Your task to perform on an android device: star an email in the gmail app Image 0: 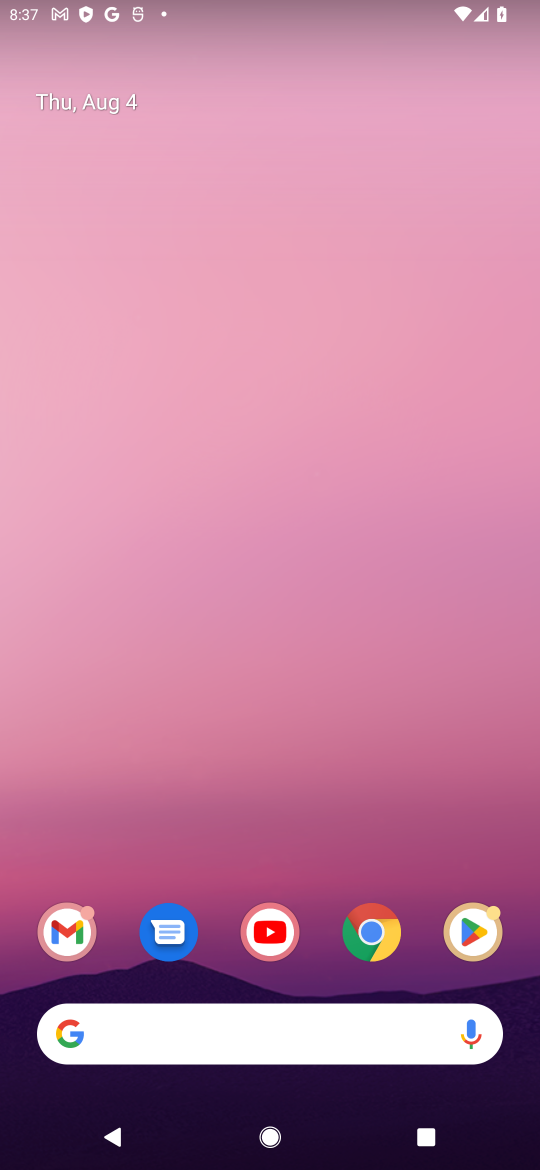
Step 0: click (60, 941)
Your task to perform on an android device: star an email in the gmail app Image 1: 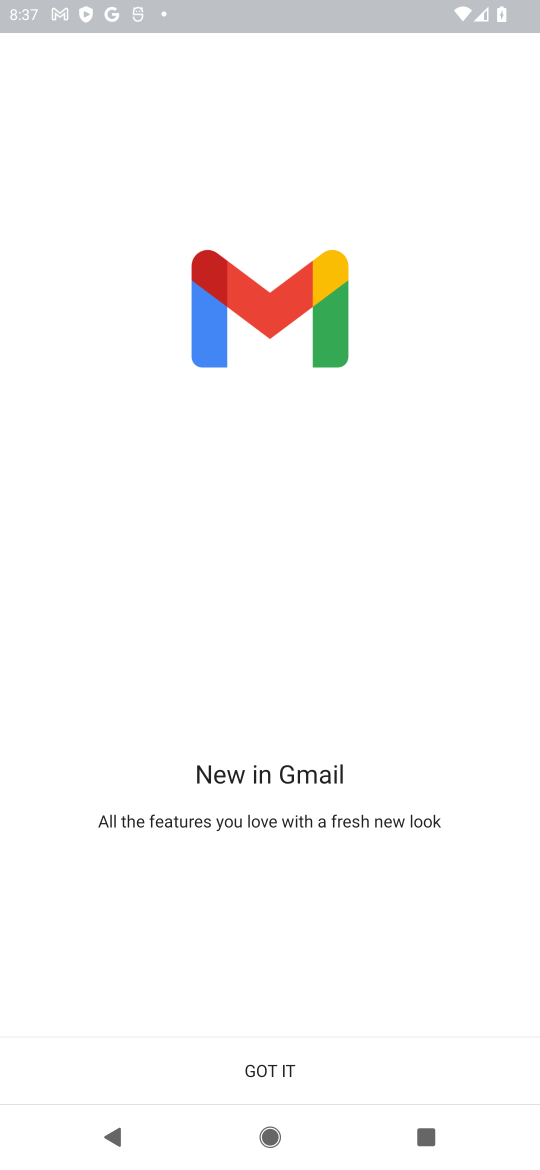
Step 1: click (245, 1081)
Your task to perform on an android device: star an email in the gmail app Image 2: 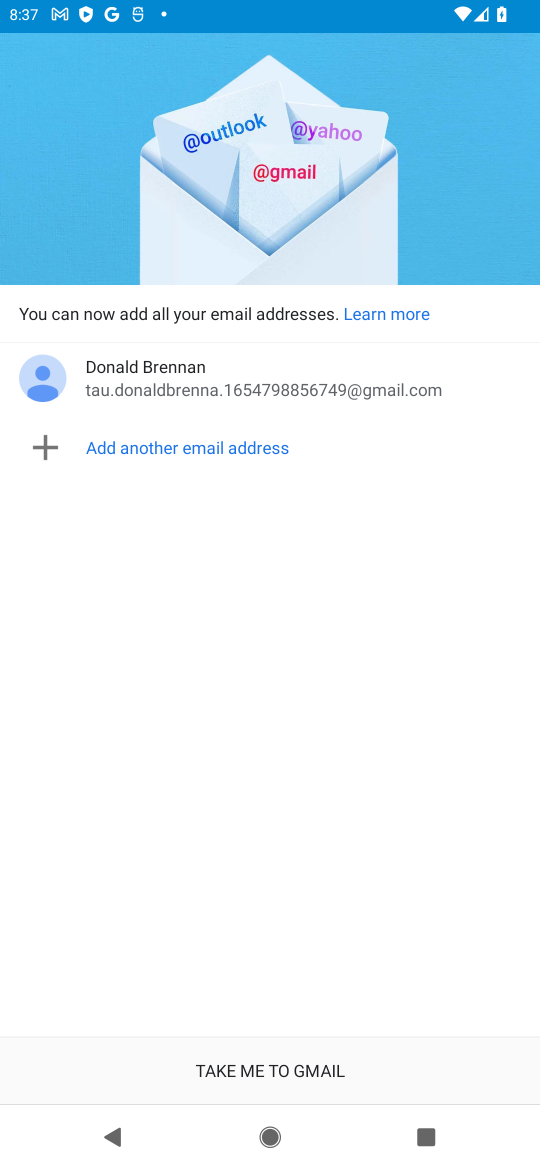
Step 2: click (245, 1081)
Your task to perform on an android device: star an email in the gmail app Image 3: 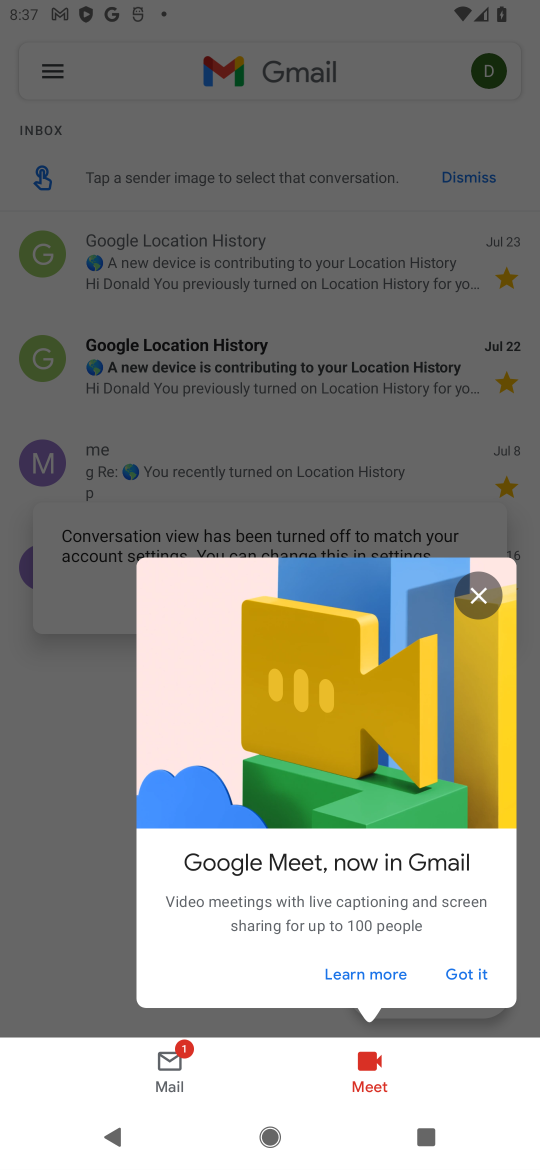
Step 3: click (252, 1065)
Your task to perform on an android device: star an email in the gmail app Image 4: 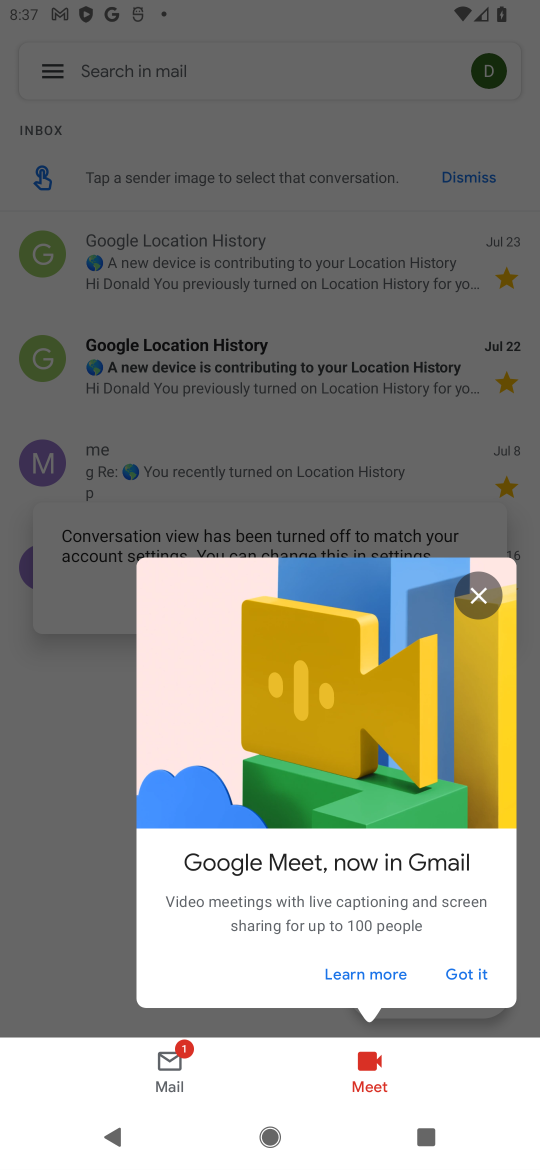
Step 4: click (44, 69)
Your task to perform on an android device: star an email in the gmail app Image 5: 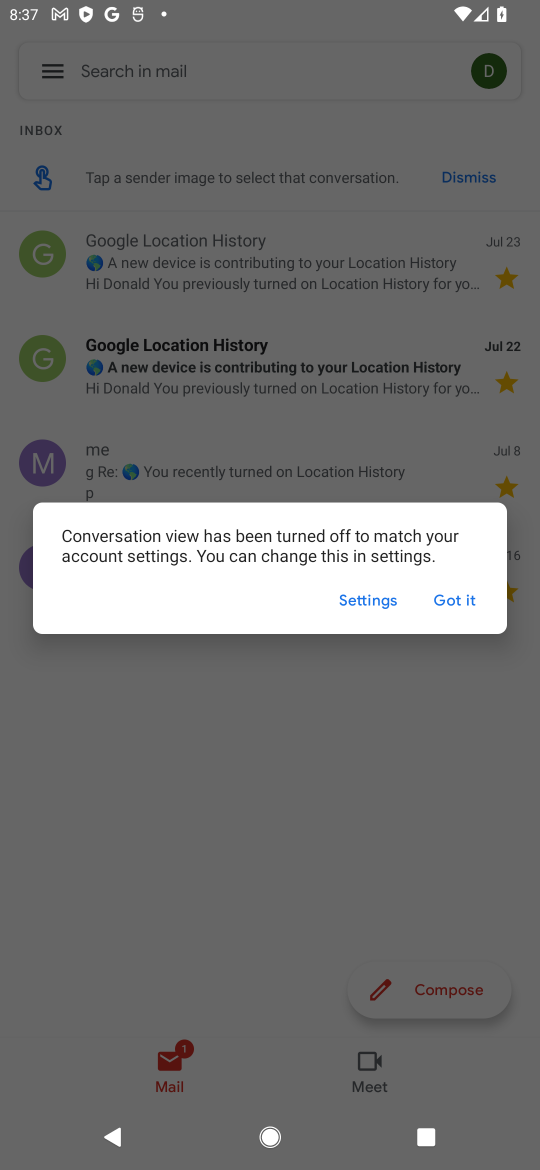
Step 5: click (447, 600)
Your task to perform on an android device: star an email in the gmail app Image 6: 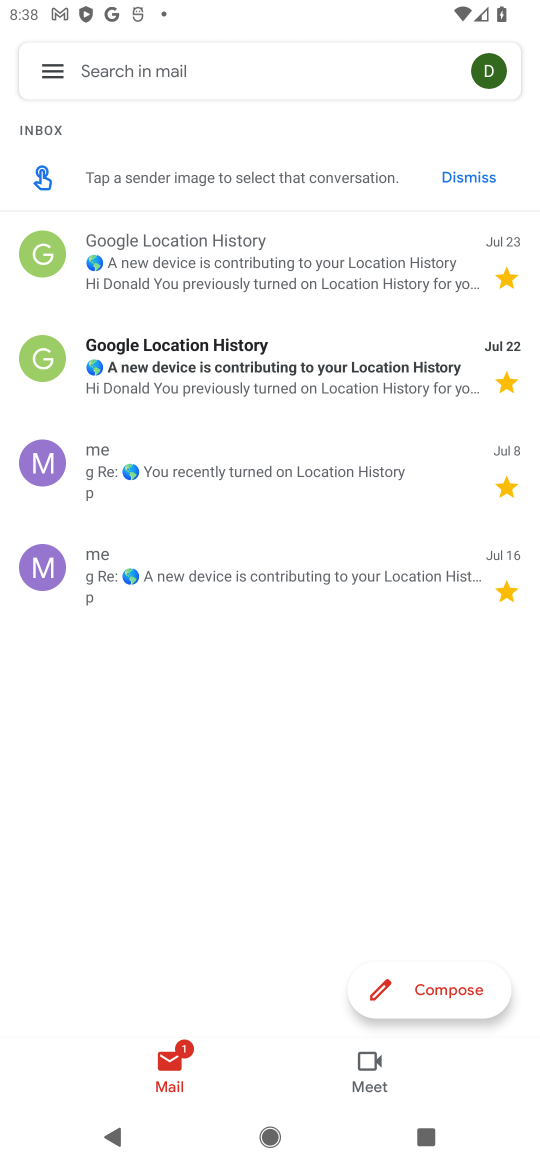
Step 6: click (228, 264)
Your task to perform on an android device: star an email in the gmail app Image 7: 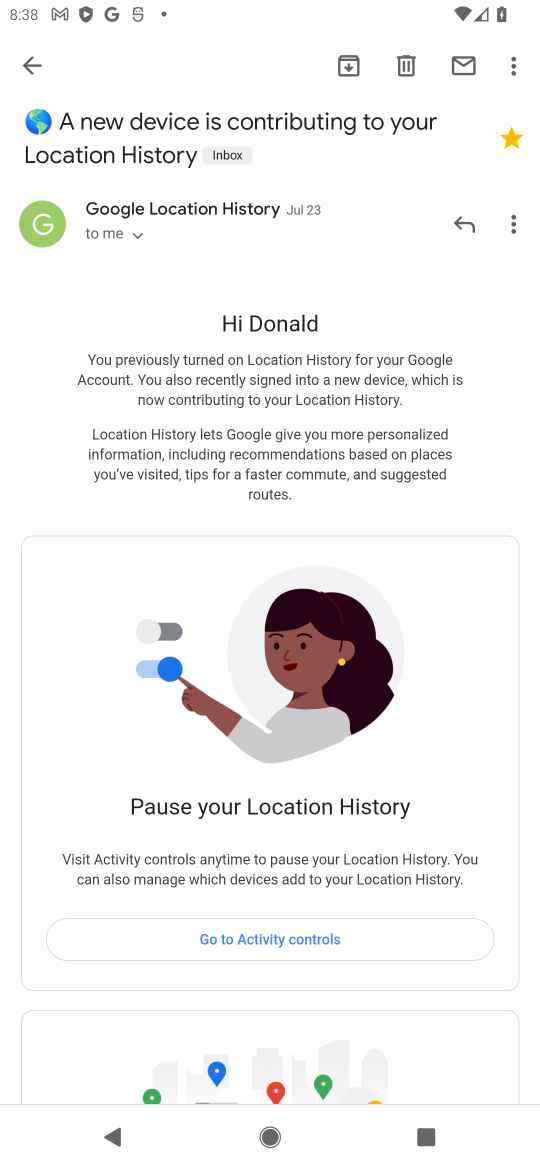
Step 7: click (512, 139)
Your task to perform on an android device: star an email in the gmail app Image 8: 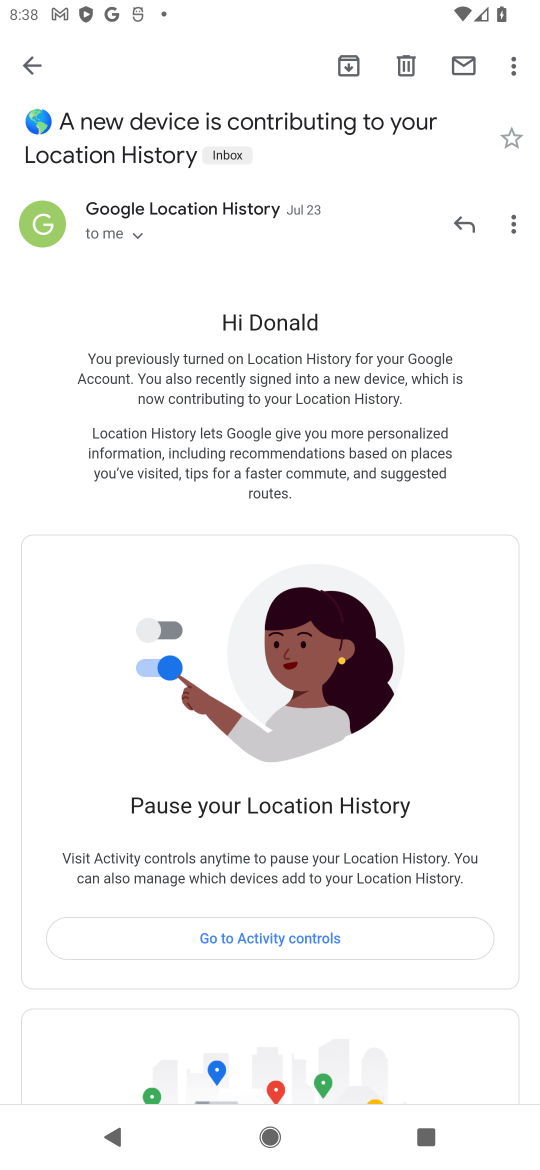
Step 8: click (512, 139)
Your task to perform on an android device: star an email in the gmail app Image 9: 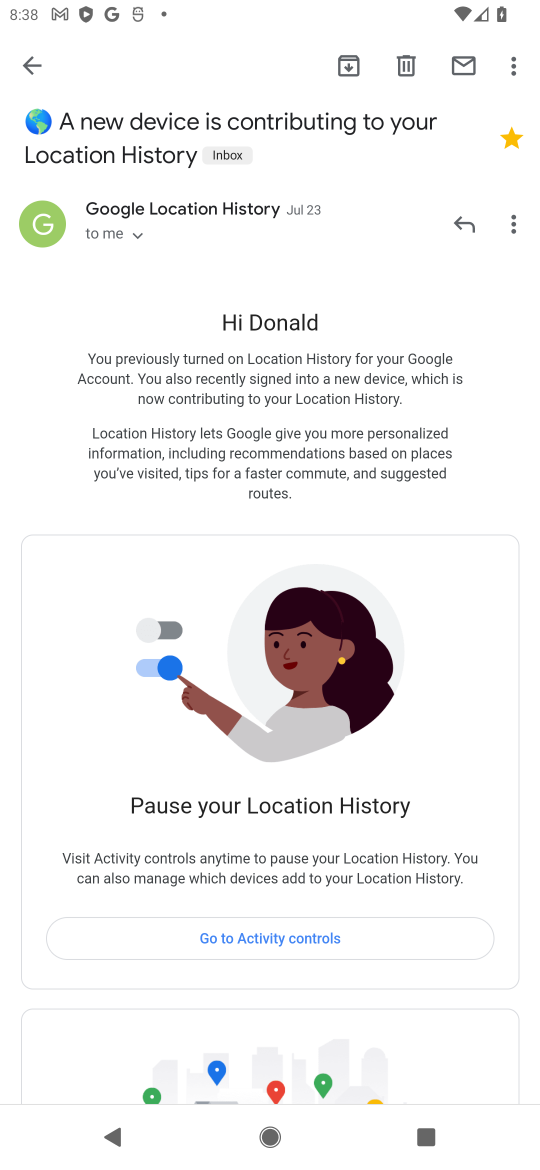
Step 9: task complete